Your task to perform on an android device: Open Chrome and go to settings Image 0: 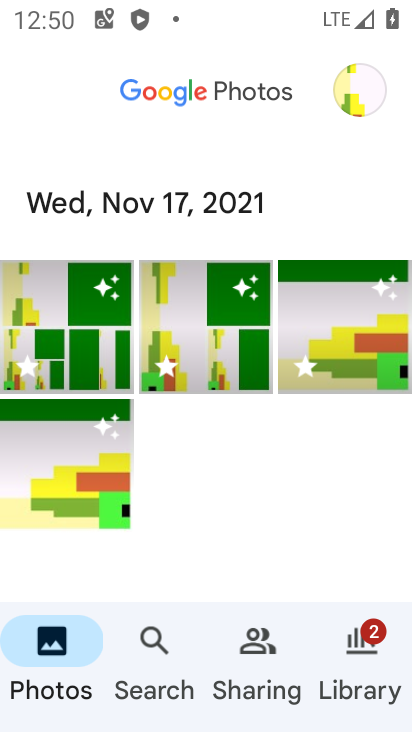
Step 0: press home button
Your task to perform on an android device: Open Chrome and go to settings Image 1: 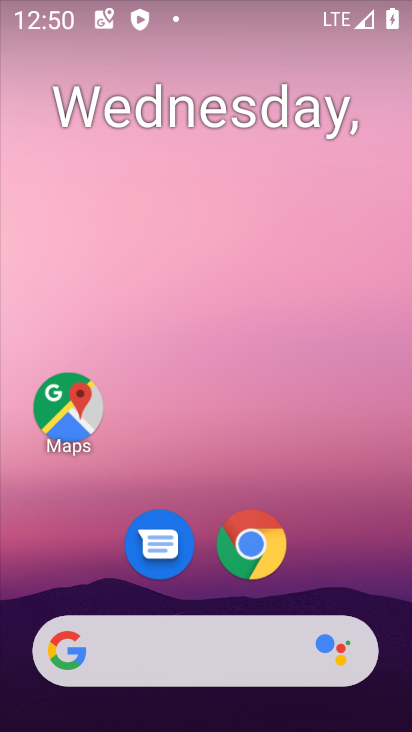
Step 1: drag from (390, 651) to (329, 69)
Your task to perform on an android device: Open Chrome and go to settings Image 2: 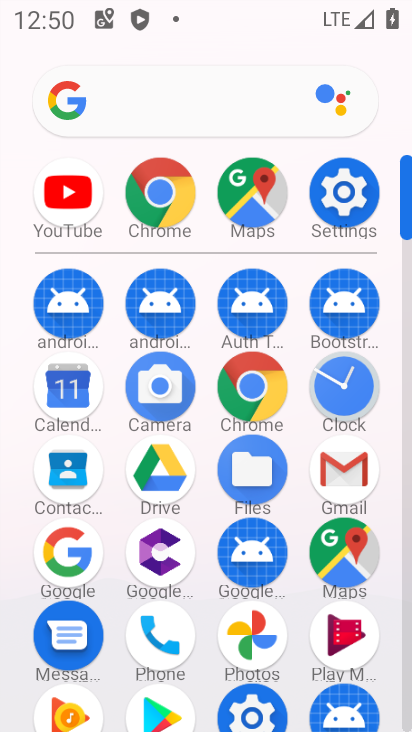
Step 2: click (175, 190)
Your task to perform on an android device: Open Chrome and go to settings Image 3: 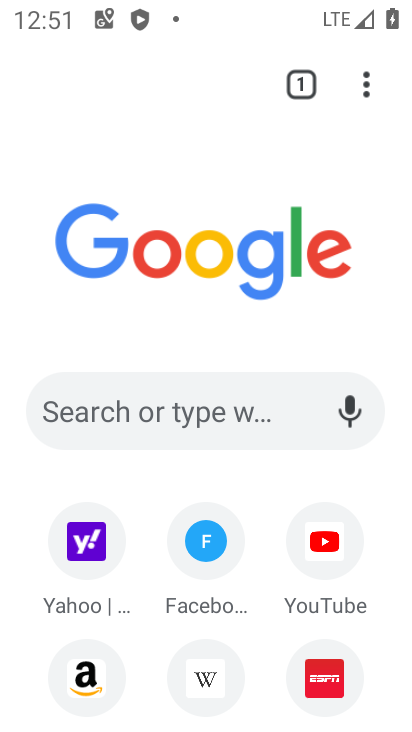
Step 3: click (369, 83)
Your task to perform on an android device: Open Chrome and go to settings Image 4: 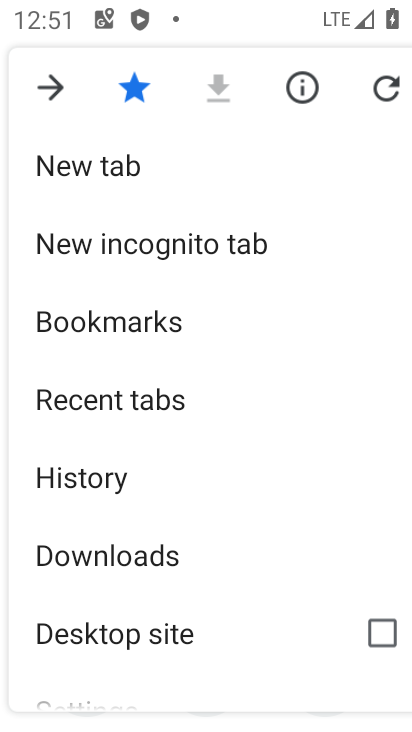
Step 4: drag from (170, 626) to (166, 162)
Your task to perform on an android device: Open Chrome and go to settings Image 5: 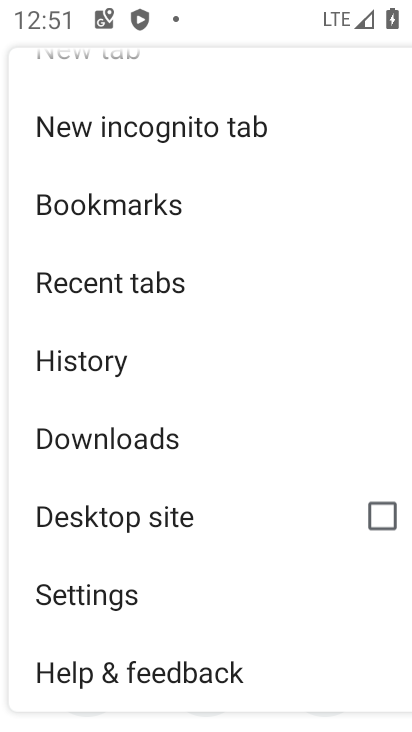
Step 5: click (122, 576)
Your task to perform on an android device: Open Chrome and go to settings Image 6: 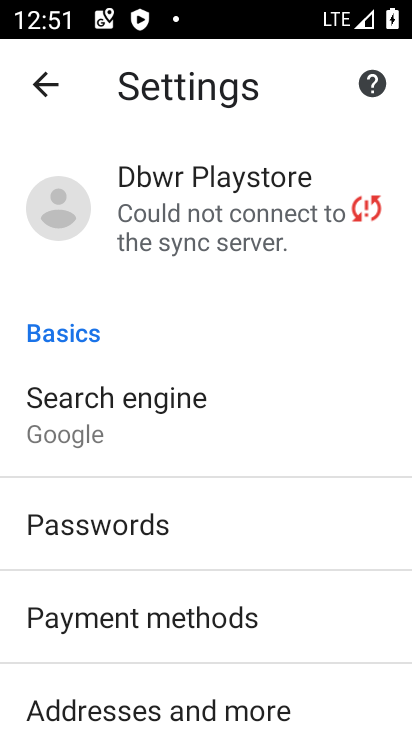
Step 6: task complete